Your task to perform on an android device: change timer sound Image 0: 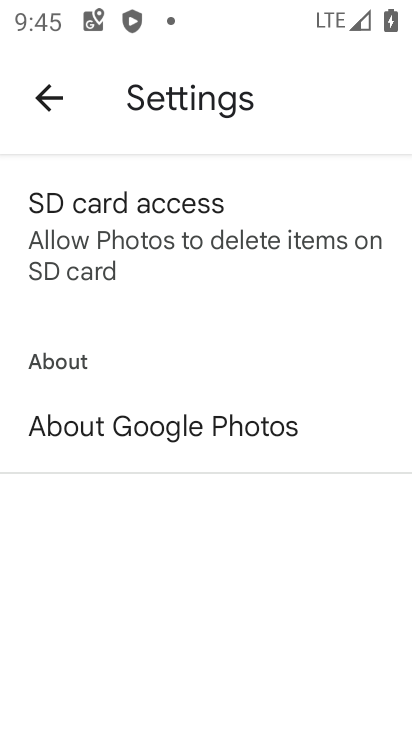
Step 0: press home button
Your task to perform on an android device: change timer sound Image 1: 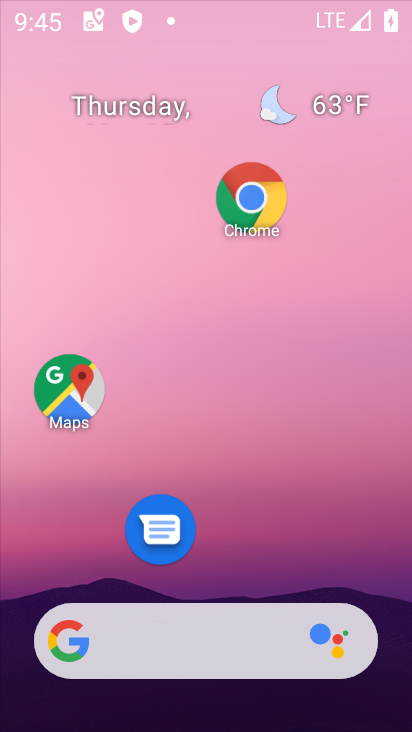
Step 1: drag from (127, 576) to (118, 48)
Your task to perform on an android device: change timer sound Image 2: 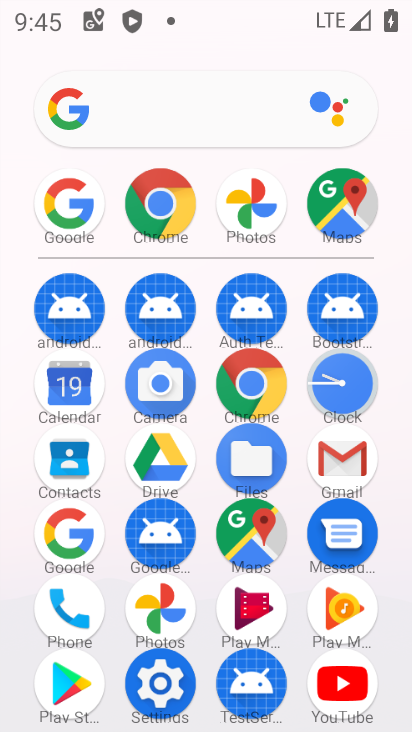
Step 2: click (352, 396)
Your task to perform on an android device: change timer sound Image 3: 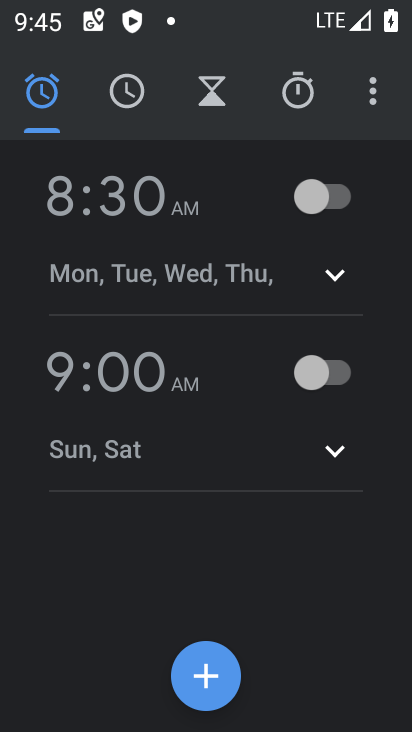
Step 3: click (382, 94)
Your task to perform on an android device: change timer sound Image 4: 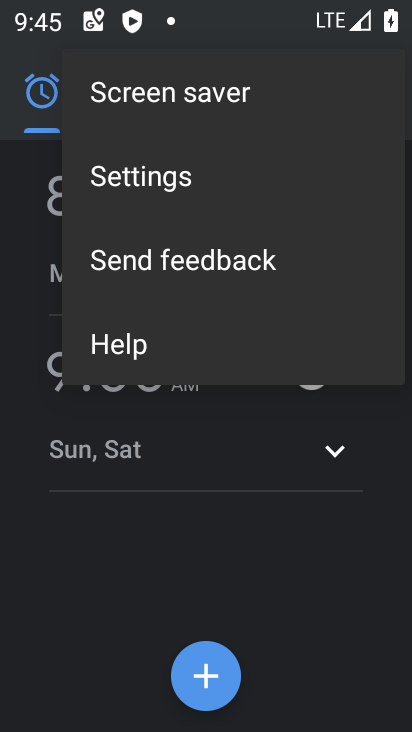
Step 4: click (200, 196)
Your task to perform on an android device: change timer sound Image 5: 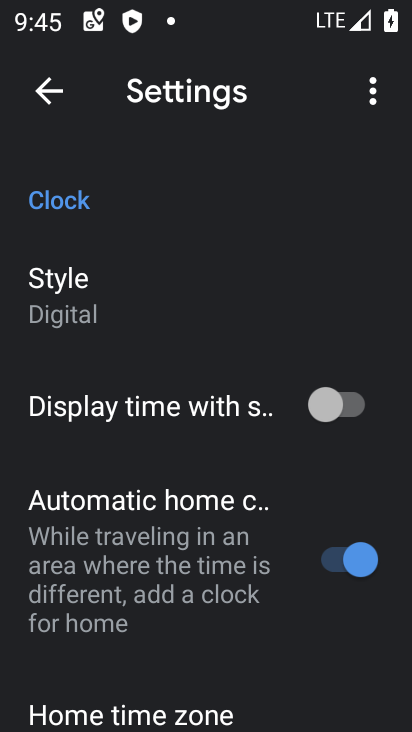
Step 5: drag from (134, 536) to (131, 223)
Your task to perform on an android device: change timer sound Image 6: 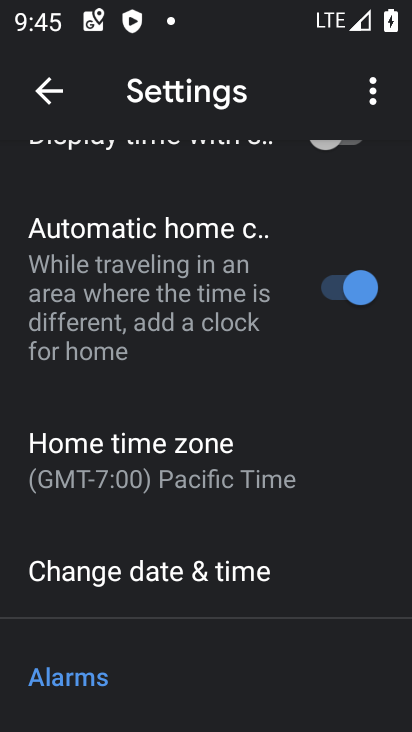
Step 6: drag from (133, 460) to (147, 285)
Your task to perform on an android device: change timer sound Image 7: 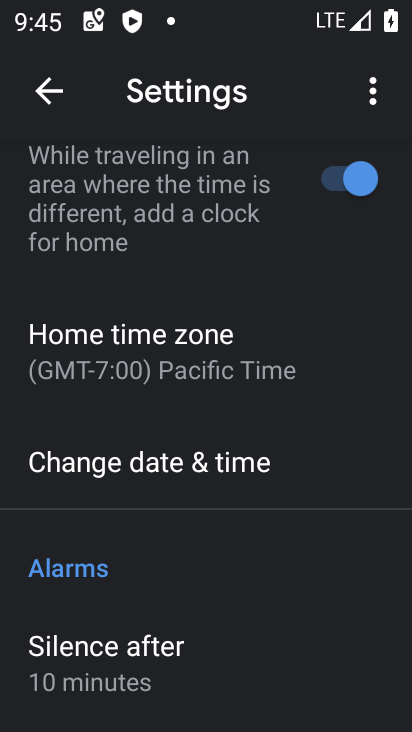
Step 7: drag from (182, 539) to (213, 432)
Your task to perform on an android device: change timer sound Image 8: 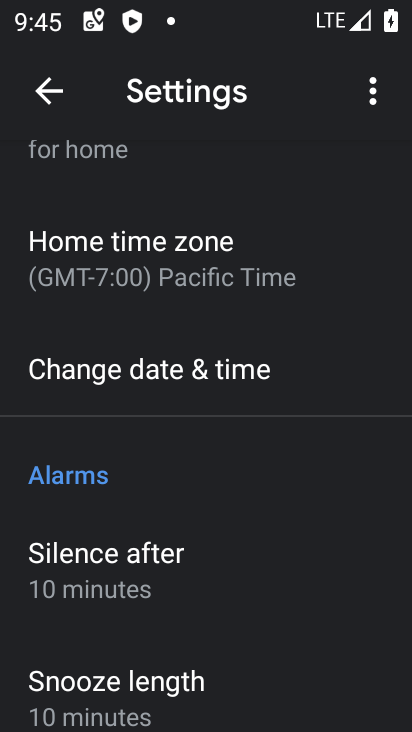
Step 8: drag from (153, 582) to (193, 239)
Your task to perform on an android device: change timer sound Image 9: 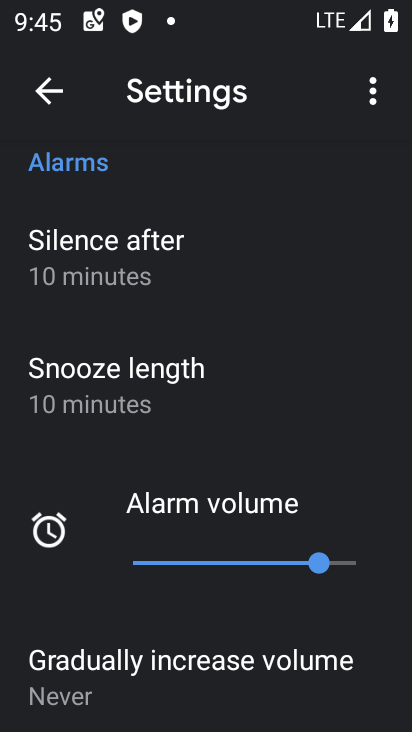
Step 9: drag from (165, 555) to (220, 278)
Your task to perform on an android device: change timer sound Image 10: 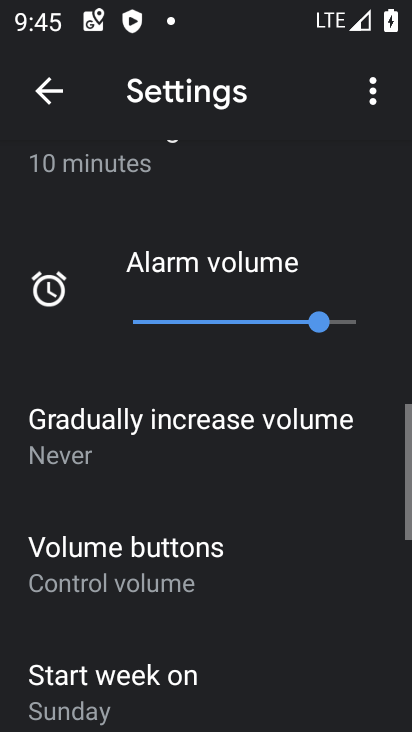
Step 10: drag from (214, 311) to (209, 619)
Your task to perform on an android device: change timer sound Image 11: 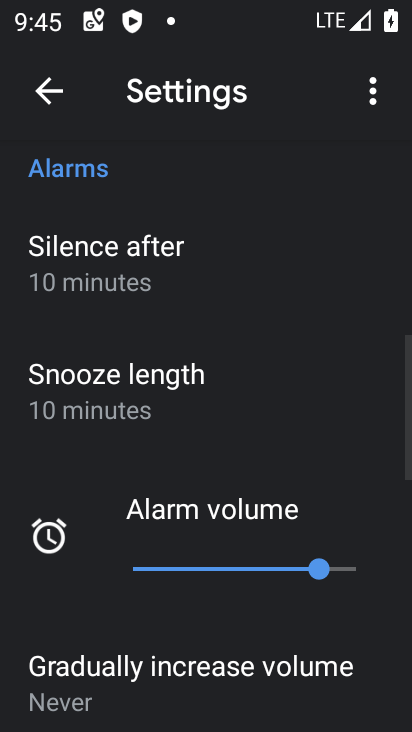
Step 11: drag from (219, 369) to (226, 239)
Your task to perform on an android device: change timer sound Image 12: 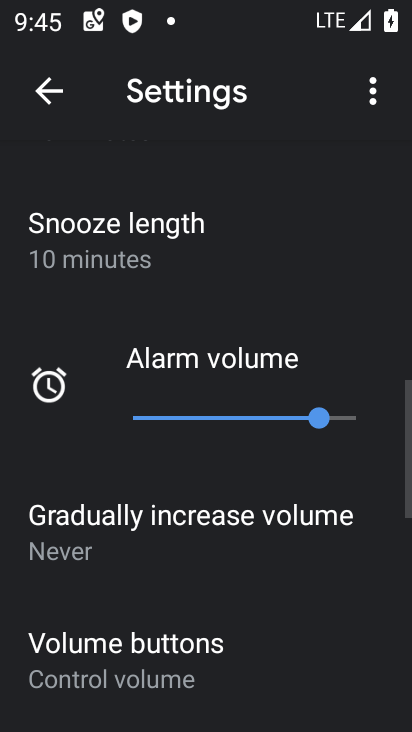
Step 12: drag from (173, 535) to (186, 251)
Your task to perform on an android device: change timer sound Image 13: 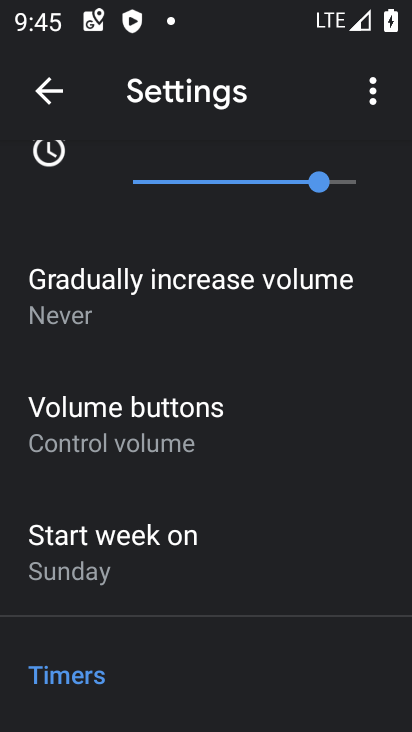
Step 13: drag from (135, 518) to (166, 231)
Your task to perform on an android device: change timer sound Image 14: 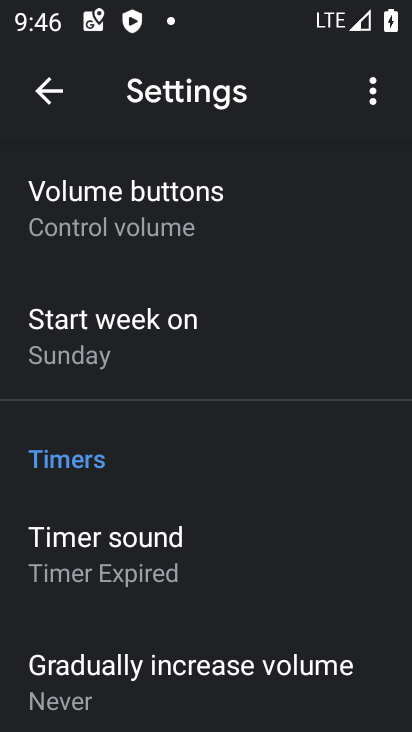
Step 14: click (191, 537)
Your task to perform on an android device: change timer sound Image 15: 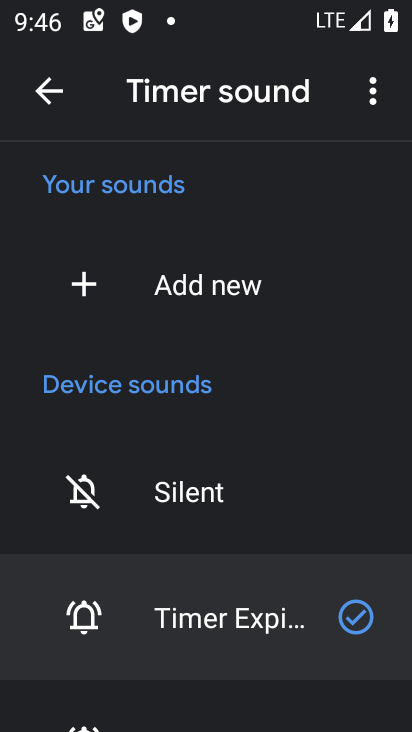
Step 15: drag from (182, 604) to (189, 349)
Your task to perform on an android device: change timer sound Image 16: 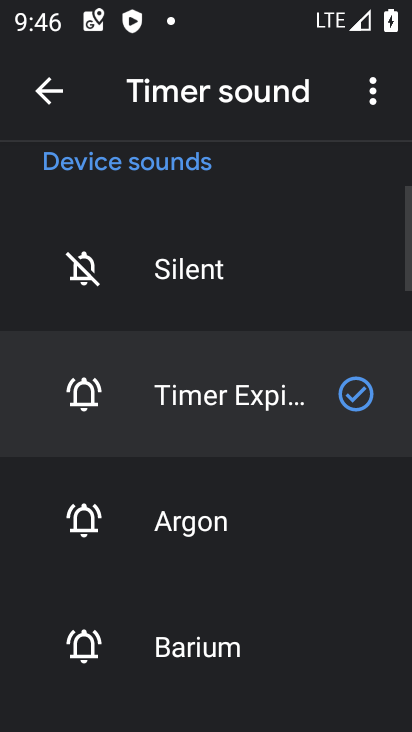
Step 16: click (193, 536)
Your task to perform on an android device: change timer sound Image 17: 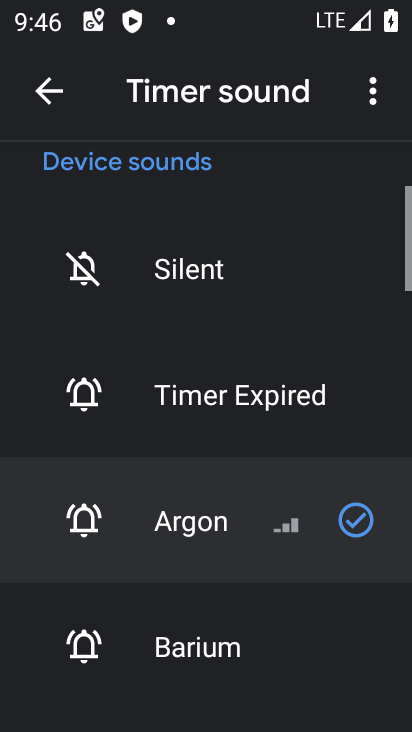
Step 17: task complete